Your task to perform on an android device: turn off javascript in the chrome app Image 0: 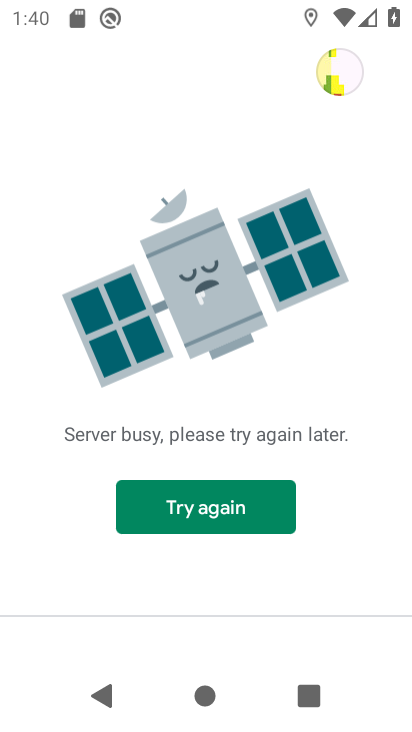
Step 0: press home button
Your task to perform on an android device: turn off javascript in the chrome app Image 1: 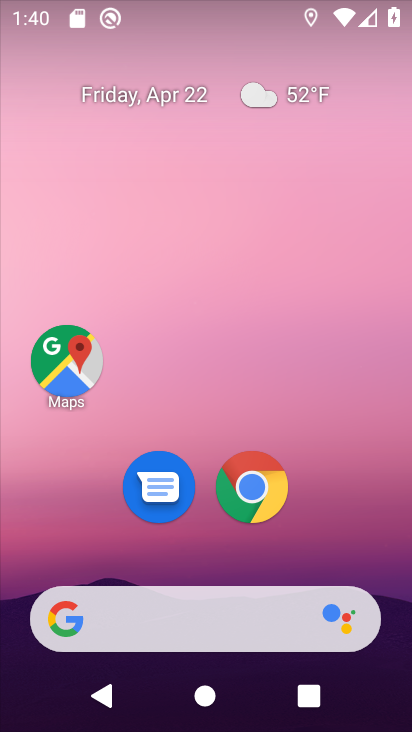
Step 1: click (243, 487)
Your task to perform on an android device: turn off javascript in the chrome app Image 2: 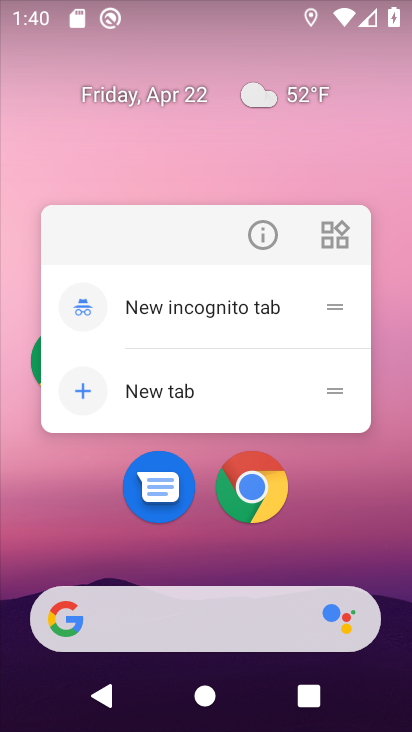
Step 2: click (247, 501)
Your task to perform on an android device: turn off javascript in the chrome app Image 3: 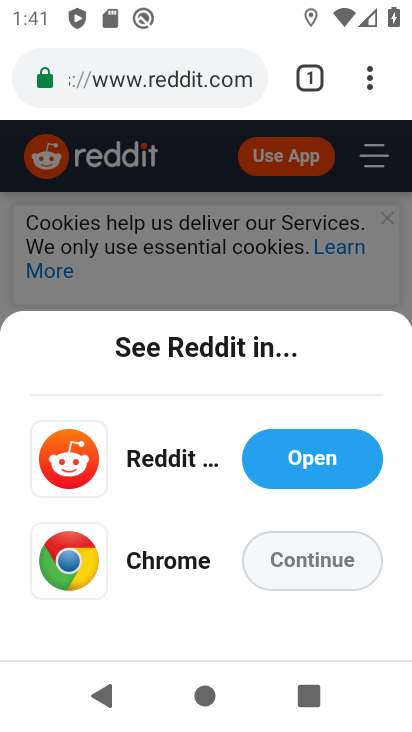
Step 3: click (300, 577)
Your task to perform on an android device: turn off javascript in the chrome app Image 4: 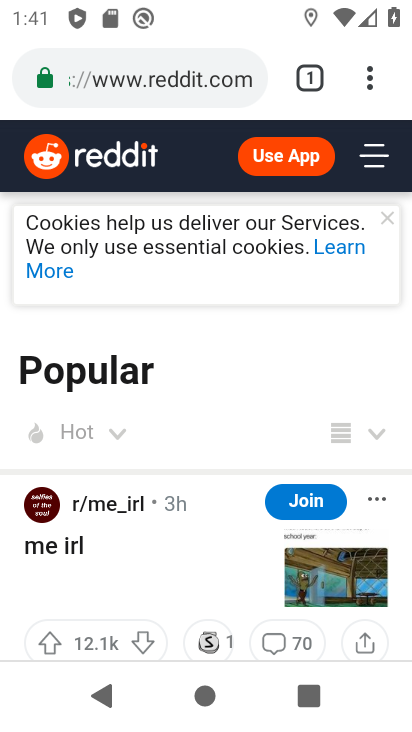
Step 4: click (371, 87)
Your task to perform on an android device: turn off javascript in the chrome app Image 5: 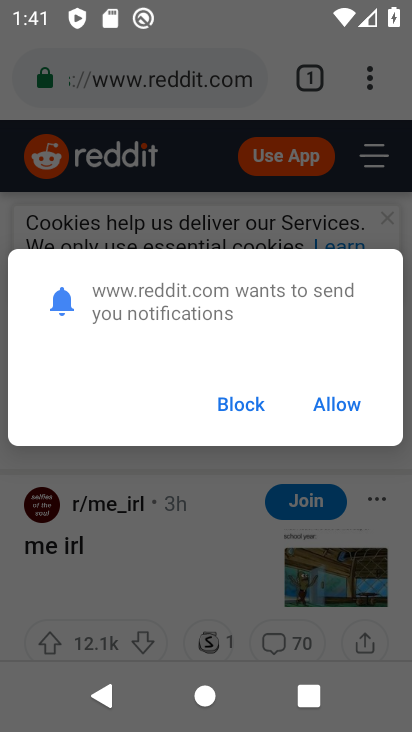
Step 5: click (267, 397)
Your task to perform on an android device: turn off javascript in the chrome app Image 6: 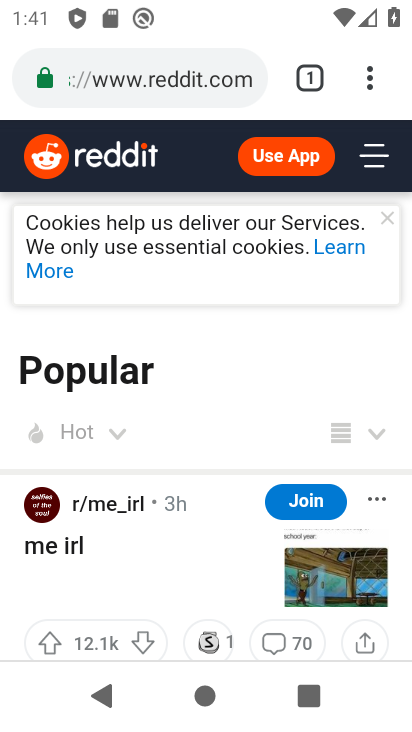
Step 6: click (374, 87)
Your task to perform on an android device: turn off javascript in the chrome app Image 7: 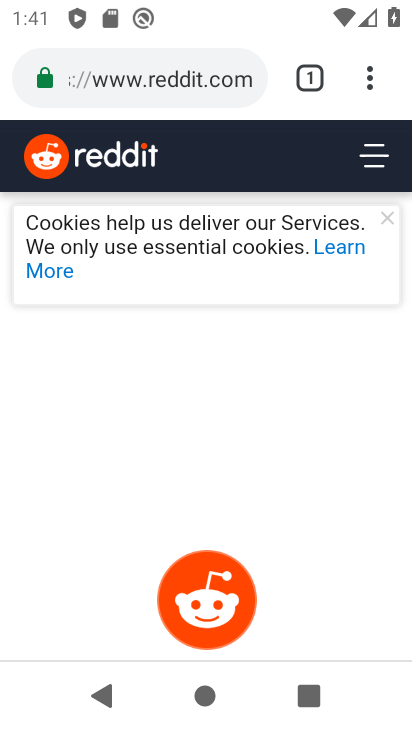
Step 7: click (312, 86)
Your task to perform on an android device: turn off javascript in the chrome app Image 8: 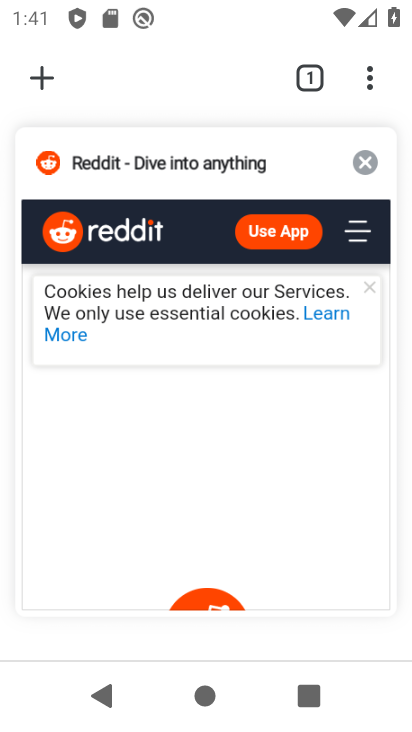
Step 8: click (365, 165)
Your task to perform on an android device: turn off javascript in the chrome app Image 9: 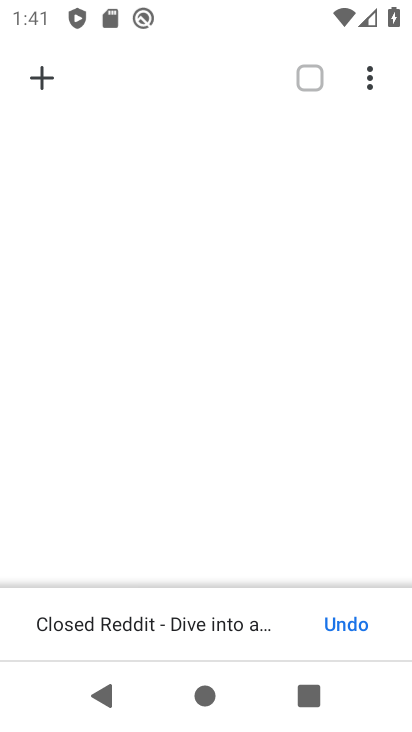
Step 9: click (43, 75)
Your task to perform on an android device: turn off javascript in the chrome app Image 10: 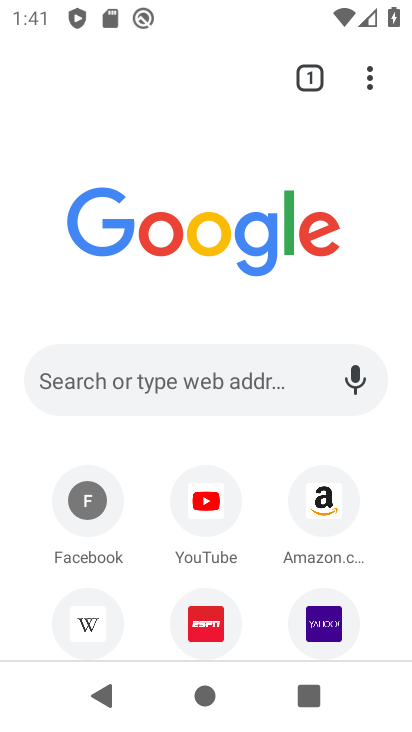
Step 10: click (363, 80)
Your task to perform on an android device: turn off javascript in the chrome app Image 11: 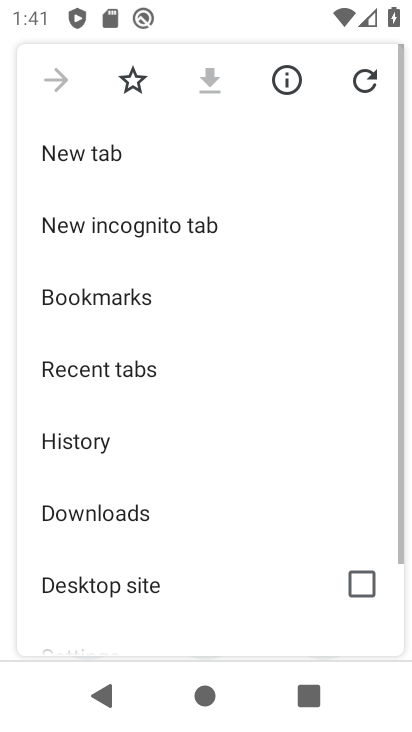
Step 11: drag from (177, 574) to (206, 203)
Your task to perform on an android device: turn off javascript in the chrome app Image 12: 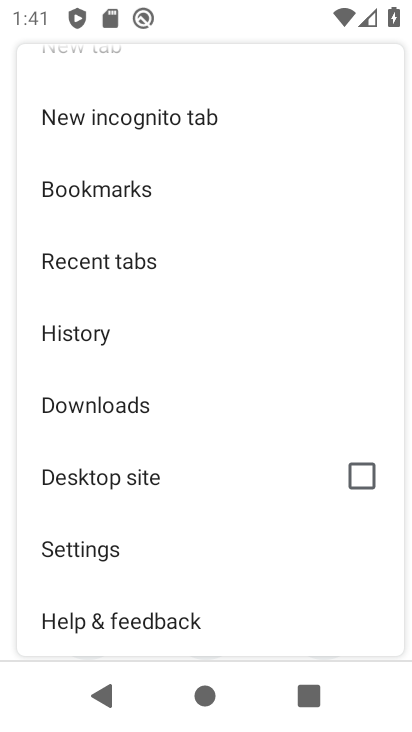
Step 12: click (120, 544)
Your task to perform on an android device: turn off javascript in the chrome app Image 13: 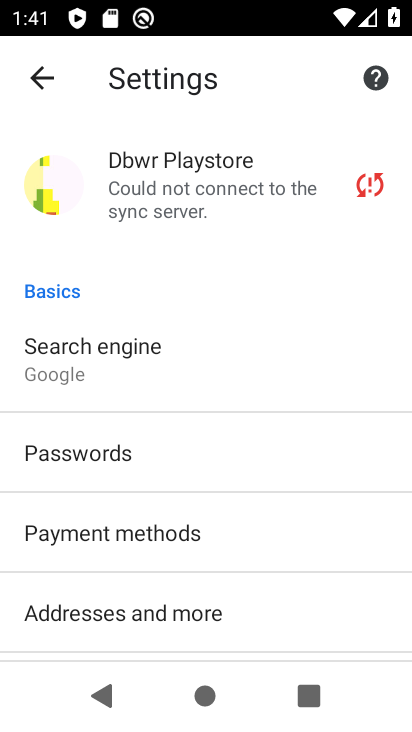
Step 13: drag from (149, 587) to (174, 374)
Your task to perform on an android device: turn off javascript in the chrome app Image 14: 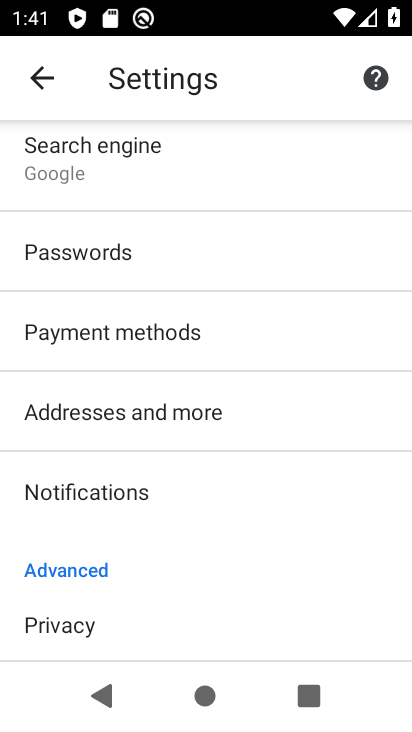
Step 14: drag from (112, 580) to (174, 324)
Your task to perform on an android device: turn off javascript in the chrome app Image 15: 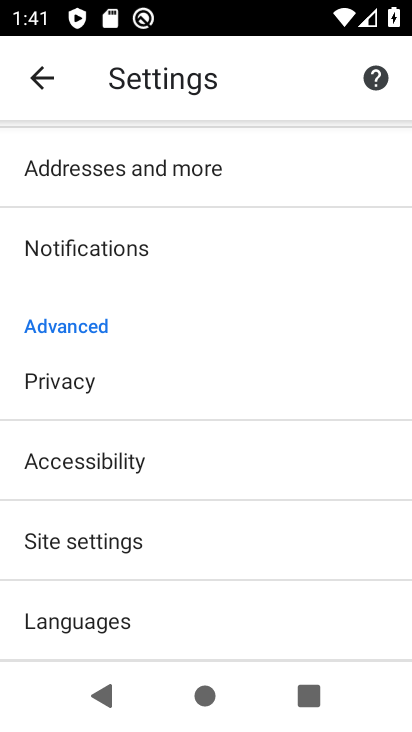
Step 15: click (105, 547)
Your task to perform on an android device: turn off javascript in the chrome app Image 16: 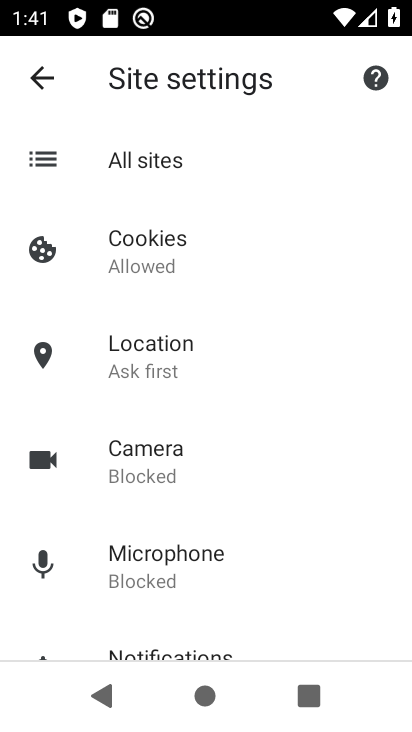
Step 16: drag from (151, 574) to (207, 386)
Your task to perform on an android device: turn off javascript in the chrome app Image 17: 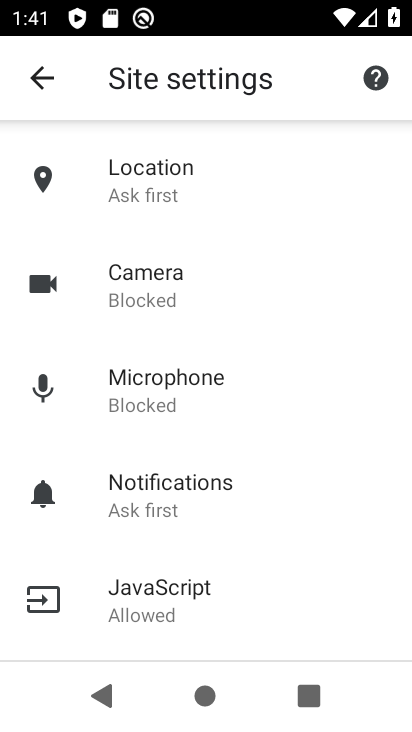
Step 17: click (149, 605)
Your task to perform on an android device: turn off javascript in the chrome app Image 18: 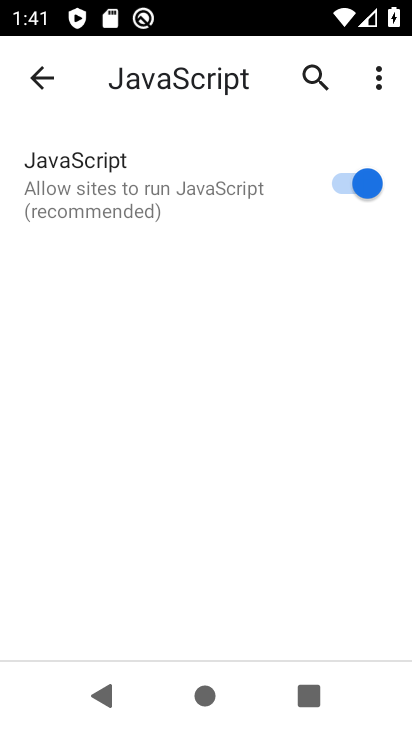
Step 18: click (345, 180)
Your task to perform on an android device: turn off javascript in the chrome app Image 19: 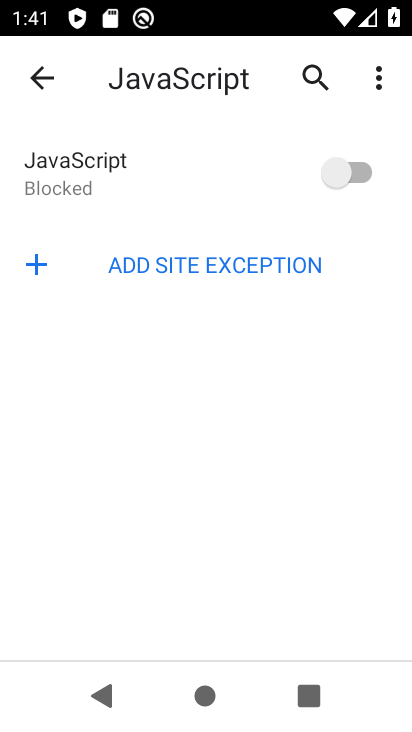
Step 19: task complete